Your task to perform on an android device: open app "Viber Messenger" (install if not already installed) Image 0: 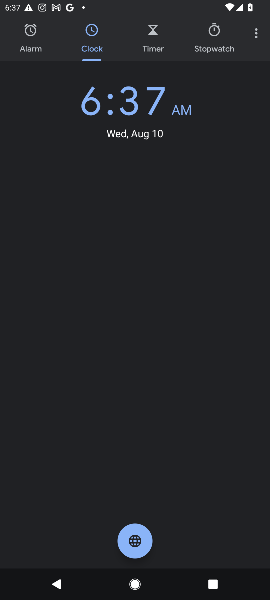
Step 0: press home button
Your task to perform on an android device: open app "Viber Messenger" (install if not already installed) Image 1: 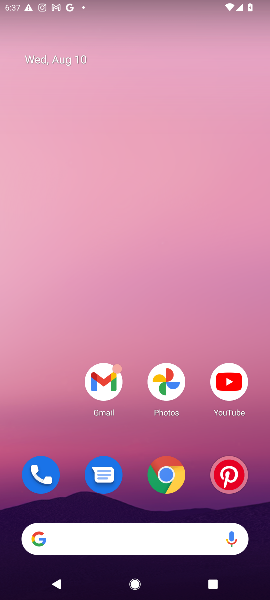
Step 1: drag from (96, 532) to (121, 239)
Your task to perform on an android device: open app "Viber Messenger" (install if not already installed) Image 2: 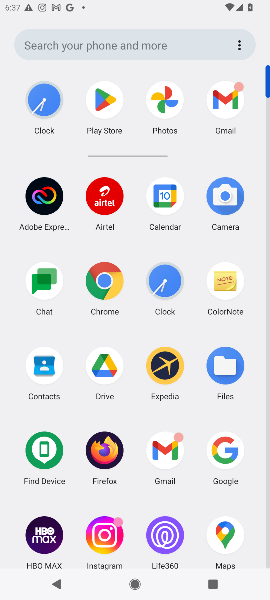
Step 2: click (98, 89)
Your task to perform on an android device: open app "Viber Messenger" (install if not already installed) Image 3: 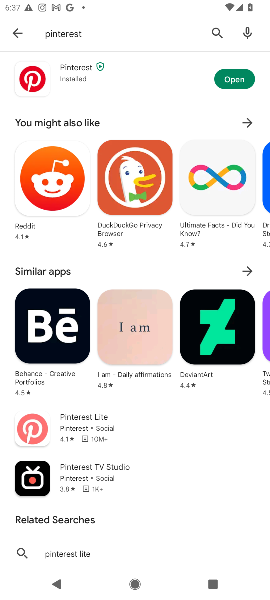
Step 3: click (217, 36)
Your task to perform on an android device: open app "Viber Messenger" (install if not already installed) Image 4: 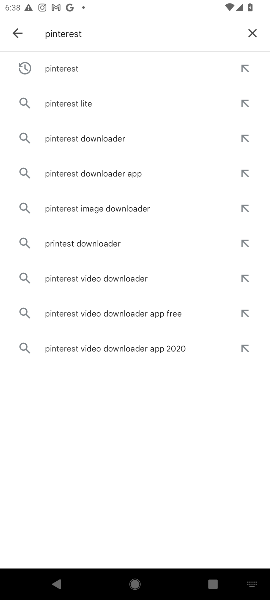
Step 4: click (253, 33)
Your task to perform on an android device: open app "Viber Messenger" (install if not already installed) Image 5: 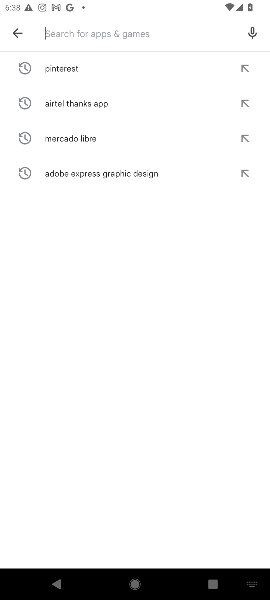
Step 5: type "viber messenger"
Your task to perform on an android device: open app "Viber Messenger" (install if not already installed) Image 6: 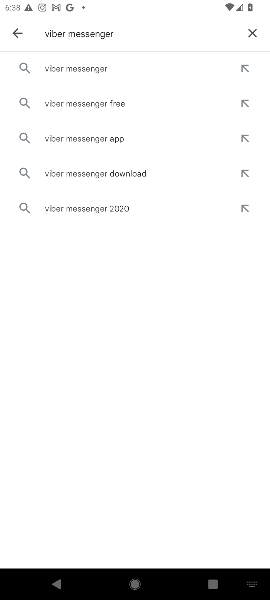
Step 6: click (116, 68)
Your task to perform on an android device: open app "Viber Messenger" (install if not already installed) Image 7: 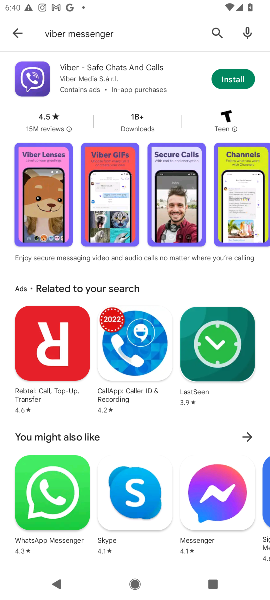
Step 7: click (232, 69)
Your task to perform on an android device: open app "Viber Messenger" (install if not already installed) Image 8: 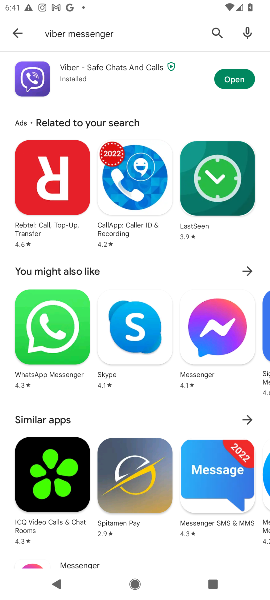
Step 8: click (232, 82)
Your task to perform on an android device: open app "Viber Messenger" (install if not already installed) Image 9: 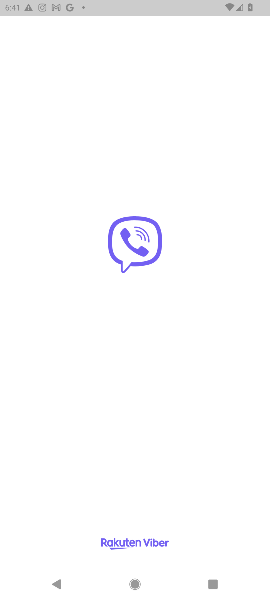
Step 9: task complete